Your task to perform on an android device: Toggle the flashlight Image 0: 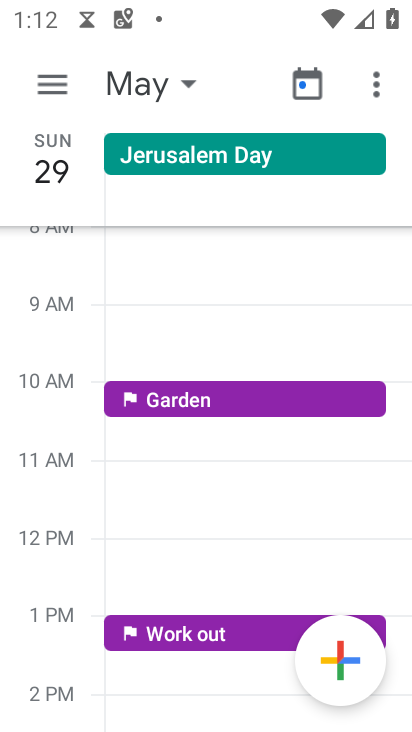
Step 0: press home button
Your task to perform on an android device: Toggle the flashlight Image 1: 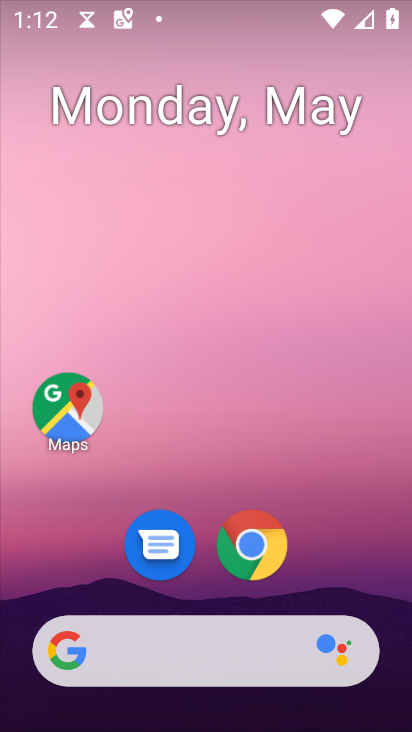
Step 1: drag from (308, 501) to (333, 269)
Your task to perform on an android device: Toggle the flashlight Image 2: 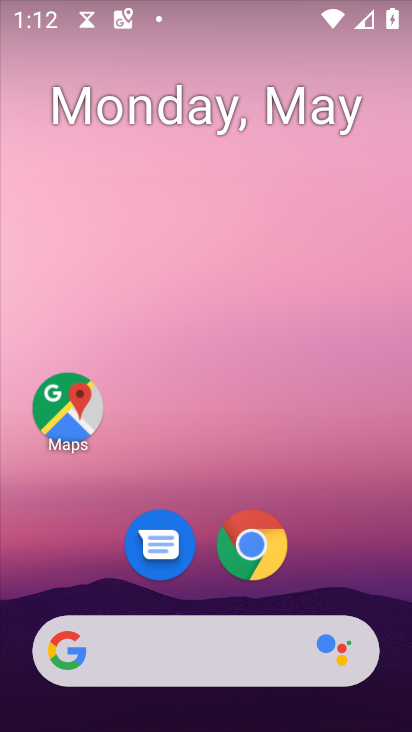
Step 2: drag from (330, 463) to (337, 170)
Your task to perform on an android device: Toggle the flashlight Image 3: 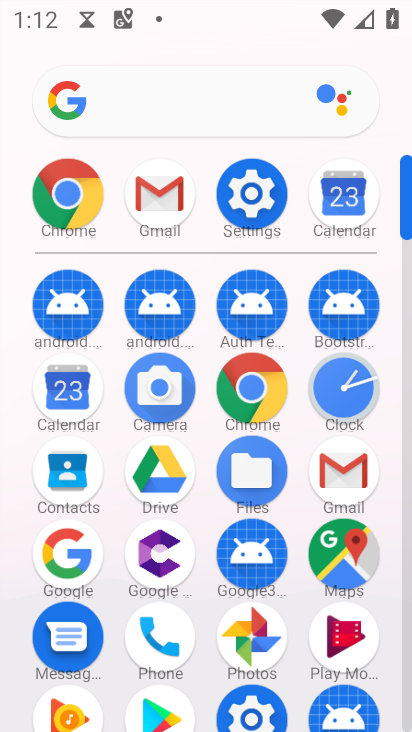
Step 3: click (245, 170)
Your task to perform on an android device: Toggle the flashlight Image 4: 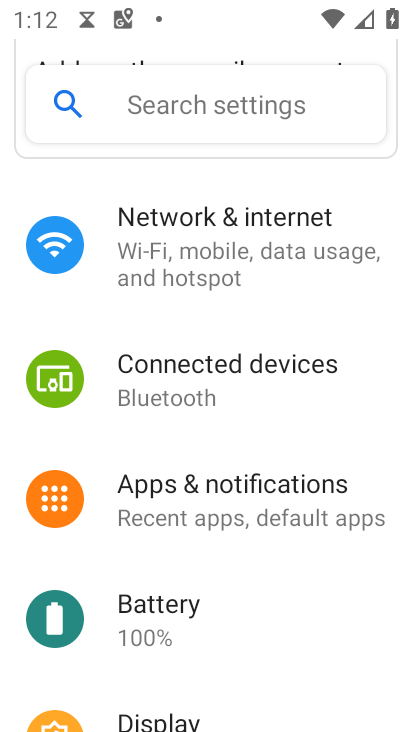
Step 4: task complete